Your task to perform on an android device: turn off location Image 0: 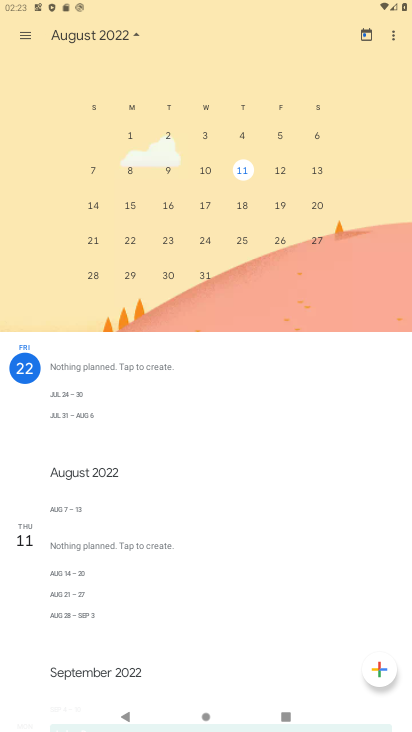
Step 0: press home button
Your task to perform on an android device: turn off location Image 1: 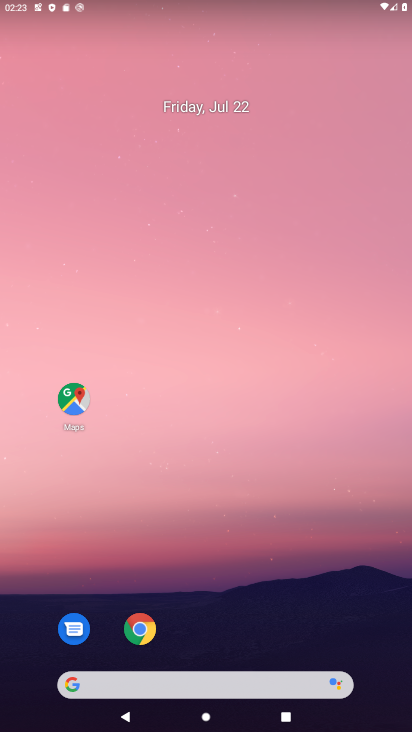
Step 1: drag from (332, 723) to (214, 22)
Your task to perform on an android device: turn off location Image 2: 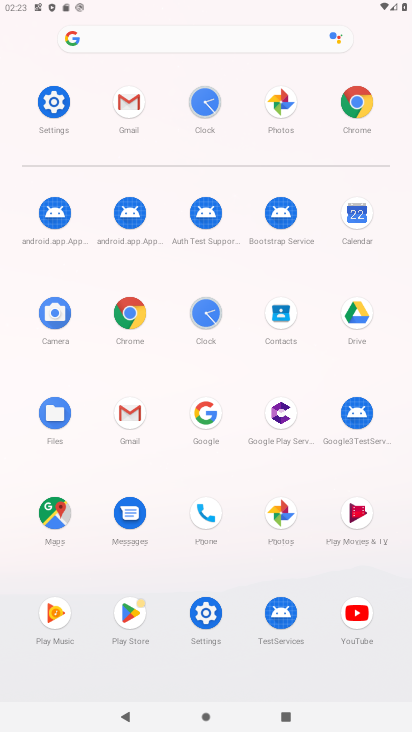
Step 2: click (42, 105)
Your task to perform on an android device: turn off location Image 3: 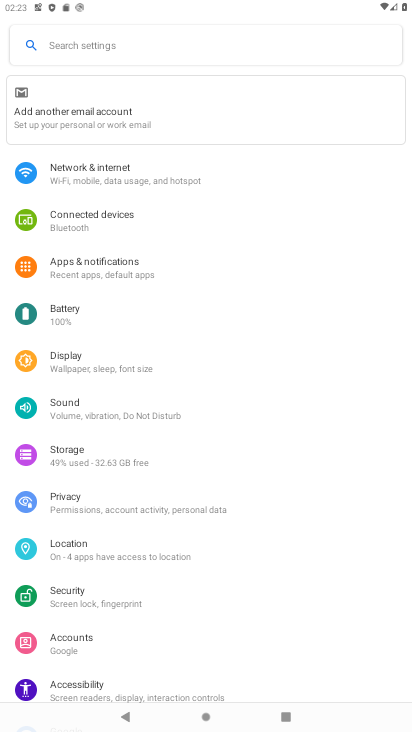
Step 3: click (61, 542)
Your task to perform on an android device: turn off location Image 4: 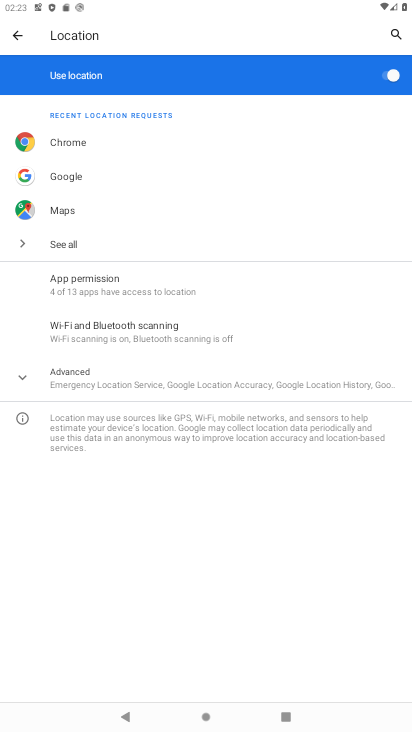
Step 4: click (397, 78)
Your task to perform on an android device: turn off location Image 5: 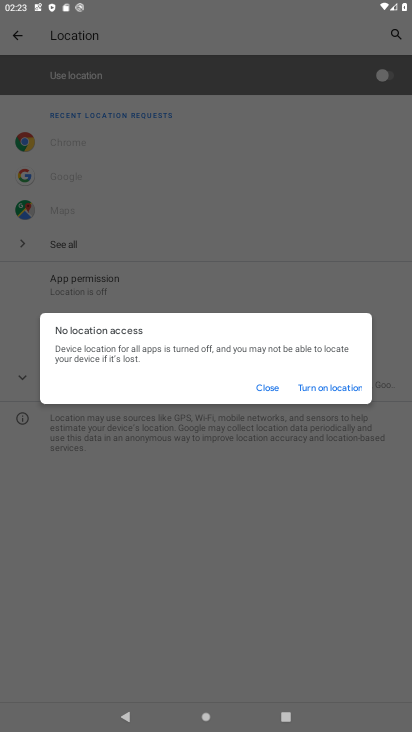
Step 5: task complete